Your task to perform on an android device: turn on javascript in the chrome app Image 0: 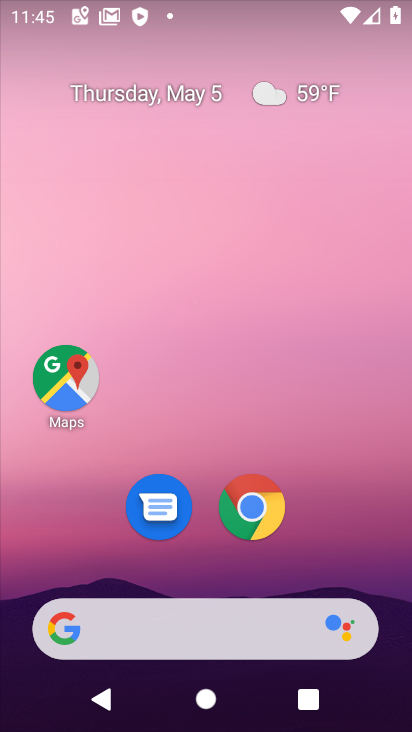
Step 0: click (250, 511)
Your task to perform on an android device: turn on javascript in the chrome app Image 1: 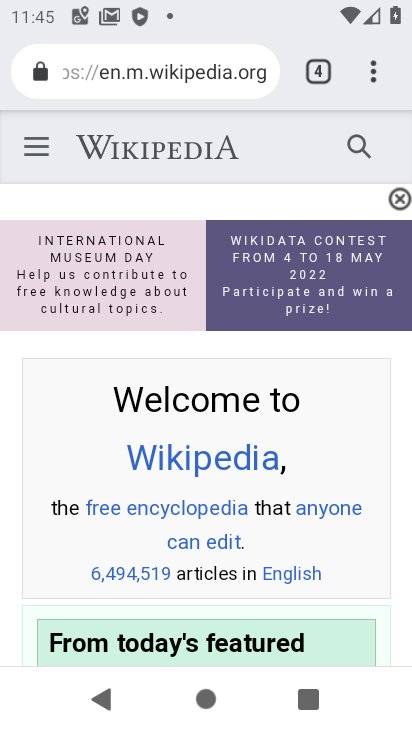
Step 1: click (372, 72)
Your task to perform on an android device: turn on javascript in the chrome app Image 2: 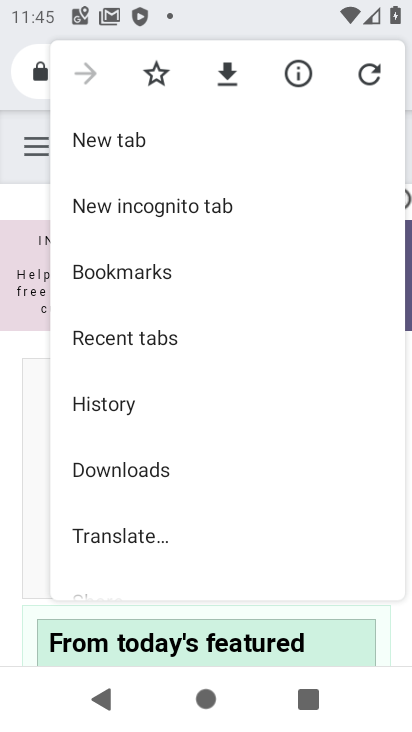
Step 2: drag from (247, 469) to (200, 166)
Your task to perform on an android device: turn on javascript in the chrome app Image 3: 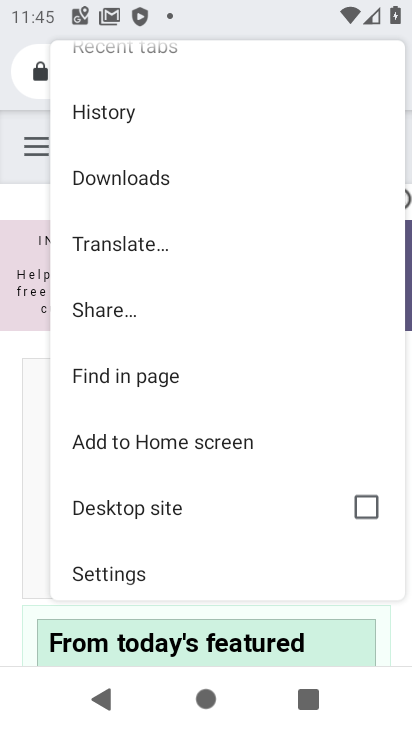
Step 3: click (116, 574)
Your task to perform on an android device: turn on javascript in the chrome app Image 4: 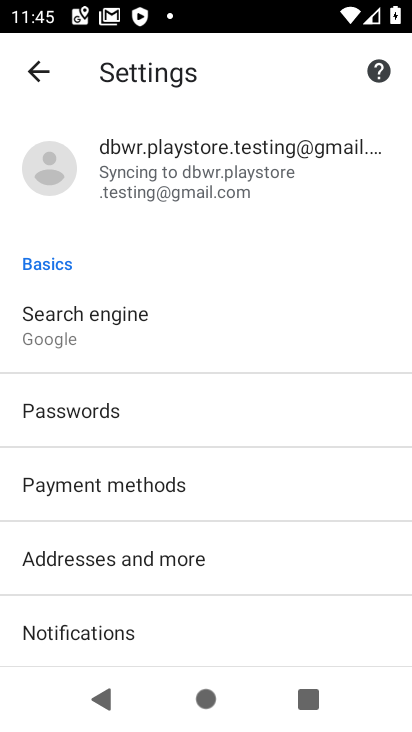
Step 4: drag from (244, 560) to (156, 10)
Your task to perform on an android device: turn on javascript in the chrome app Image 5: 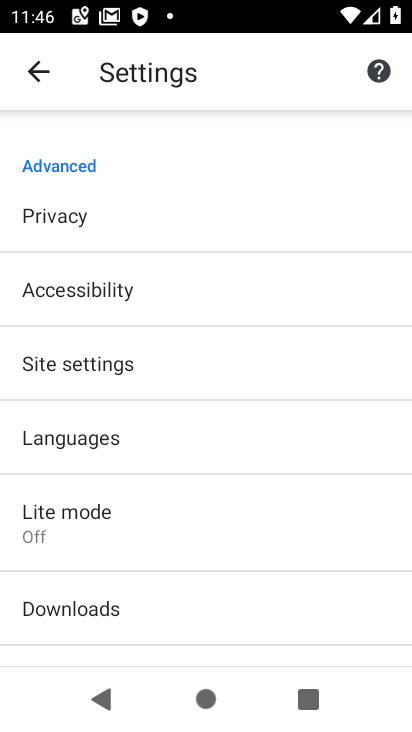
Step 5: click (92, 367)
Your task to perform on an android device: turn on javascript in the chrome app Image 6: 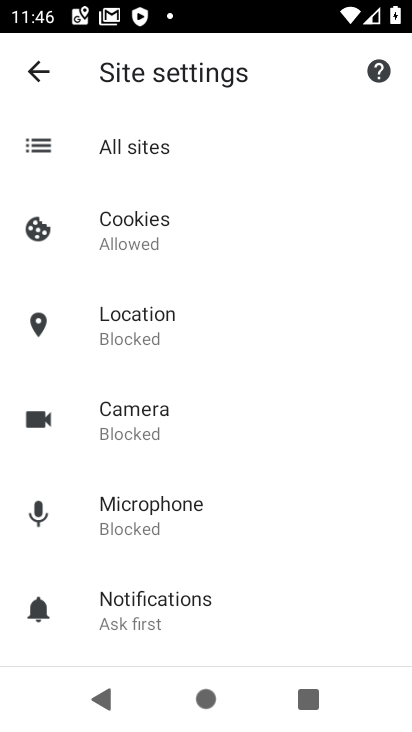
Step 6: drag from (244, 541) to (208, 154)
Your task to perform on an android device: turn on javascript in the chrome app Image 7: 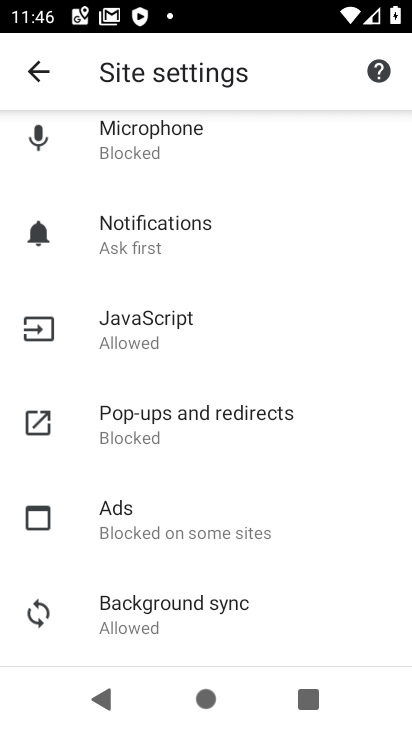
Step 7: click (135, 330)
Your task to perform on an android device: turn on javascript in the chrome app Image 8: 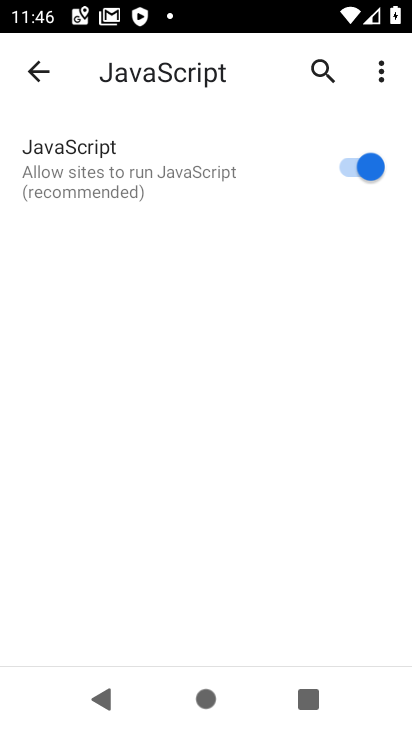
Step 8: task complete